Your task to perform on an android device: Open Youtube and go to "Your channel" Image 0: 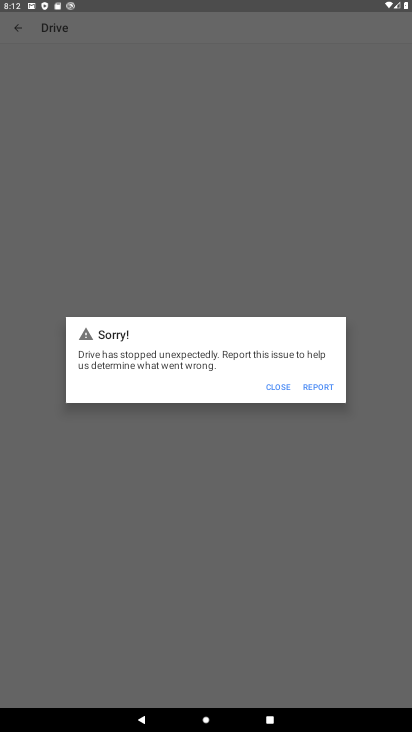
Step 0: press home button
Your task to perform on an android device: Open Youtube and go to "Your channel" Image 1: 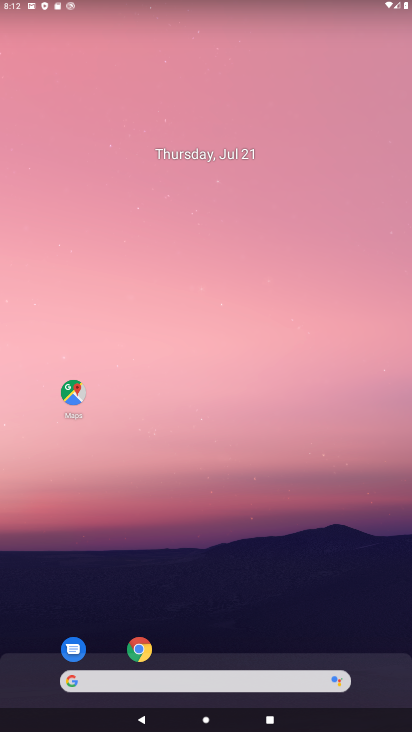
Step 1: drag from (176, 660) to (168, 59)
Your task to perform on an android device: Open Youtube and go to "Your channel" Image 2: 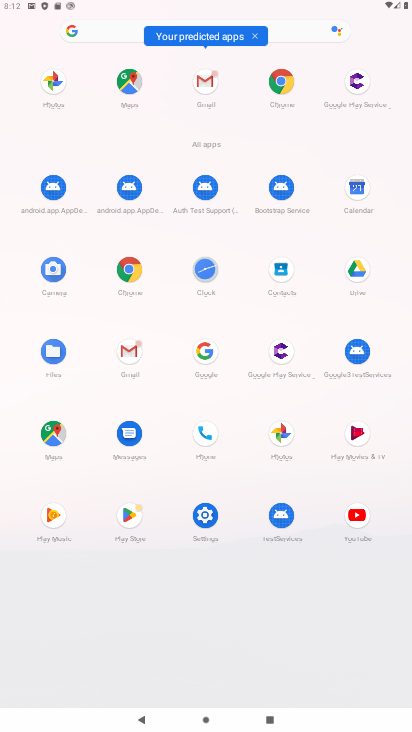
Step 2: click (353, 515)
Your task to perform on an android device: Open Youtube and go to "Your channel" Image 3: 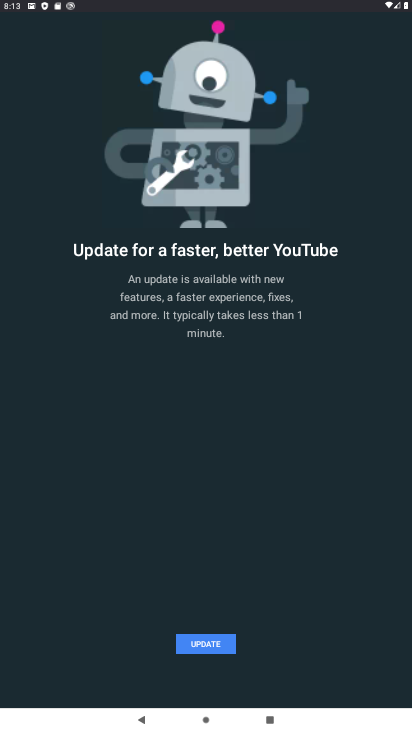
Step 3: click (201, 644)
Your task to perform on an android device: Open Youtube and go to "Your channel" Image 4: 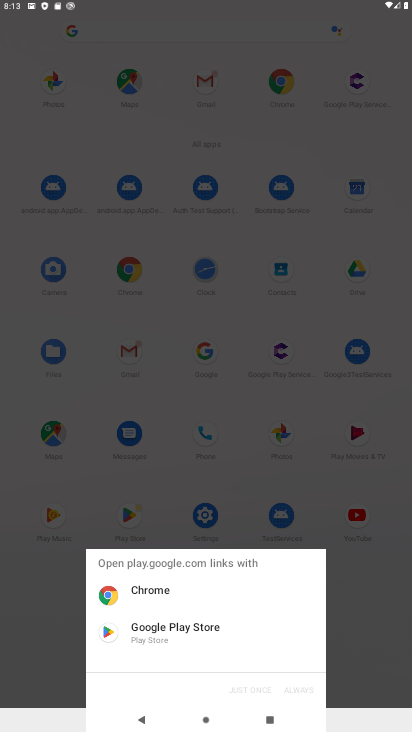
Step 4: click (201, 644)
Your task to perform on an android device: Open Youtube and go to "Your channel" Image 5: 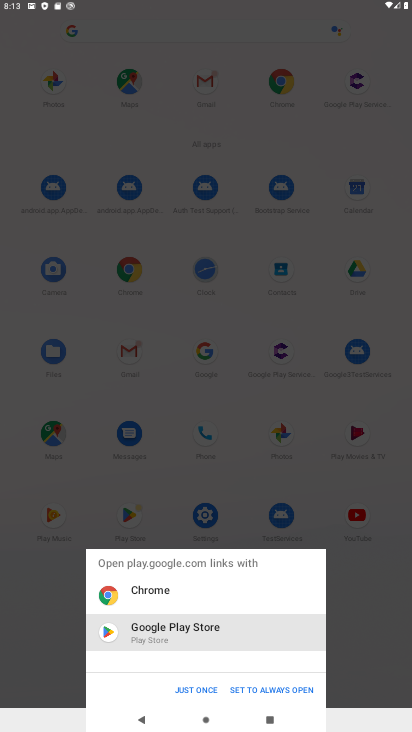
Step 5: click (184, 688)
Your task to perform on an android device: Open Youtube and go to "Your channel" Image 6: 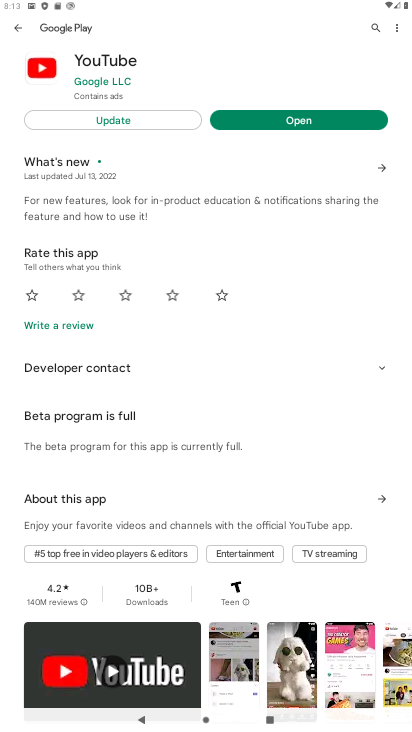
Step 6: click (323, 119)
Your task to perform on an android device: Open Youtube and go to "Your channel" Image 7: 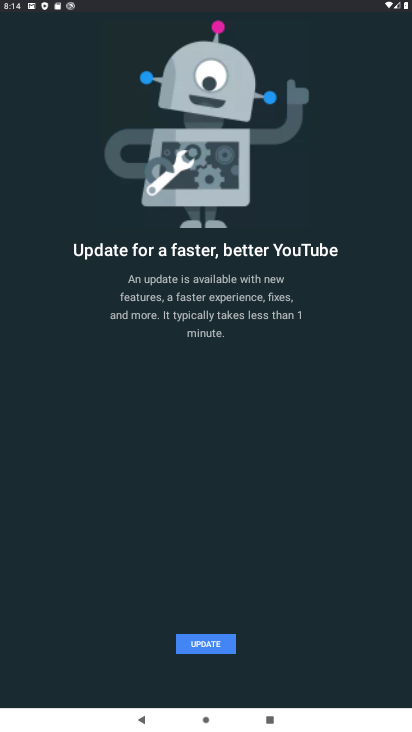
Step 7: click (200, 647)
Your task to perform on an android device: Open Youtube and go to "Your channel" Image 8: 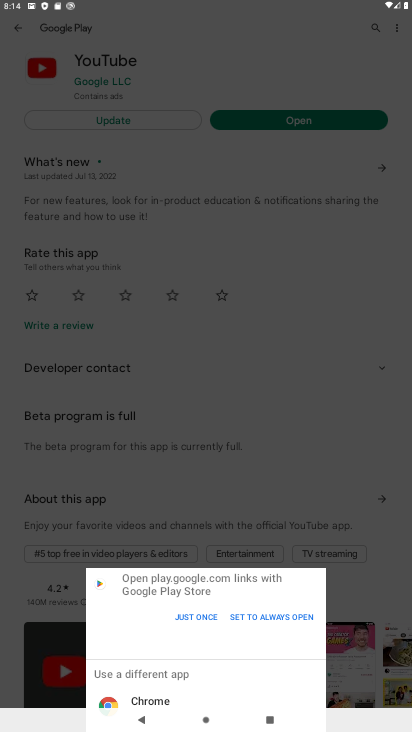
Step 8: click (197, 613)
Your task to perform on an android device: Open Youtube and go to "Your channel" Image 9: 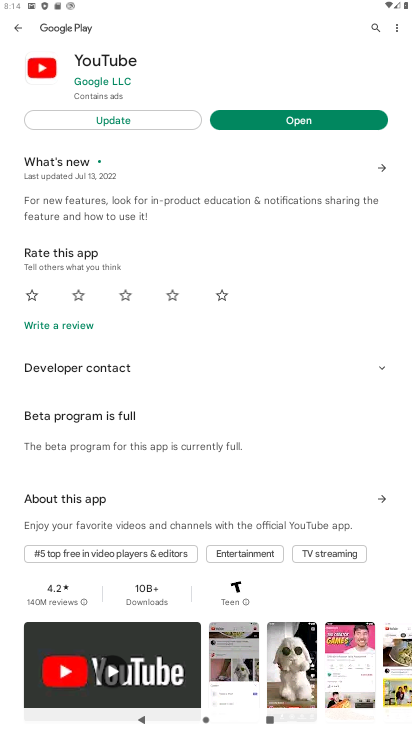
Step 9: click (100, 128)
Your task to perform on an android device: Open Youtube and go to "Your channel" Image 10: 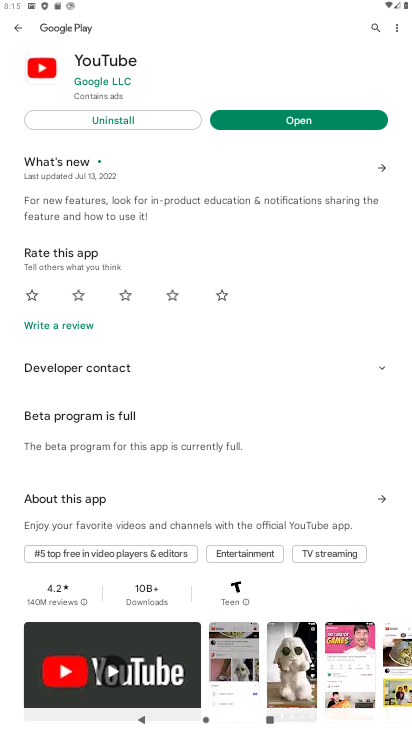
Step 10: click (233, 118)
Your task to perform on an android device: Open Youtube and go to "Your channel" Image 11: 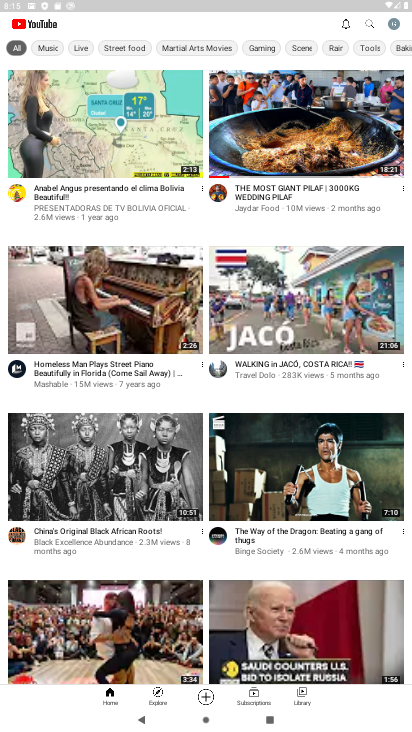
Step 11: click (369, 23)
Your task to perform on an android device: Open Youtube and go to "Your channel" Image 12: 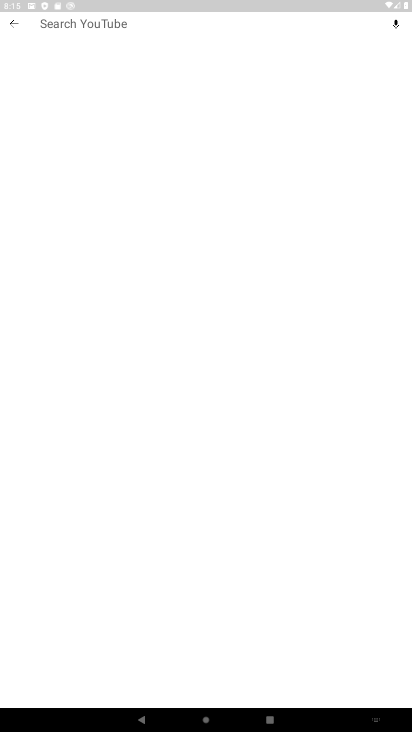
Step 12: type "your channel,"
Your task to perform on an android device: Open Youtube and go to "Your channel" Image 13: 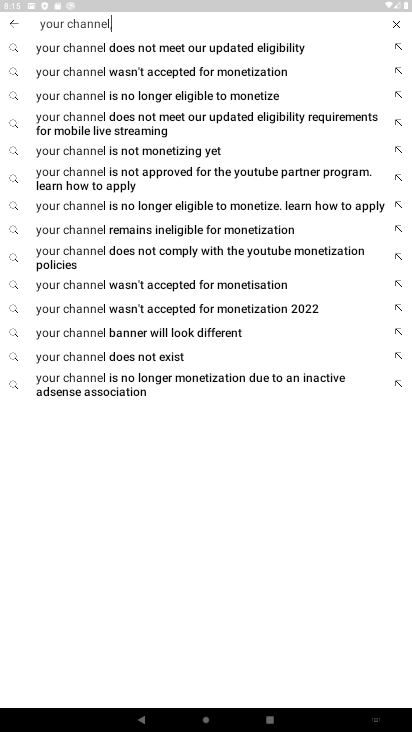
Step 13: click (395, 22)
Your task to perform on an android device: Open Youtube and go to "Your channel" Image 14: 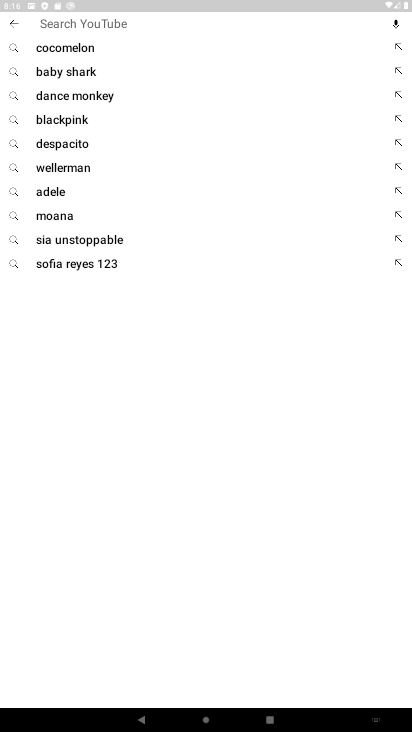
Step 14: type "your channel"
Your task to perform on an android device: Open Youtube and go to "Your channel" Image 15: 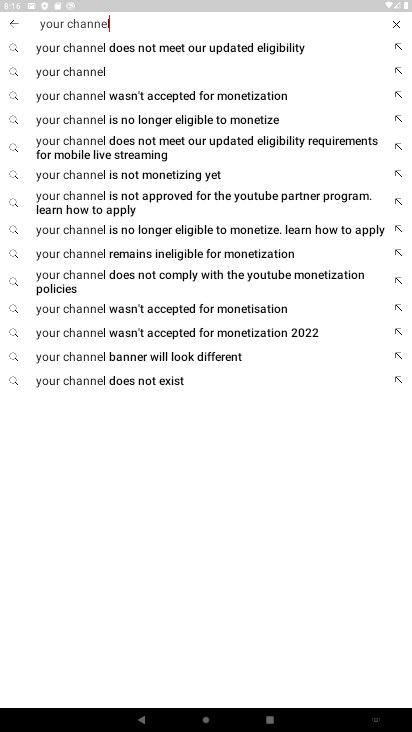
Step 15: click (120, 81)
Your task to perform on an android device: Open Youtube and go to "Your channel" Image 16: 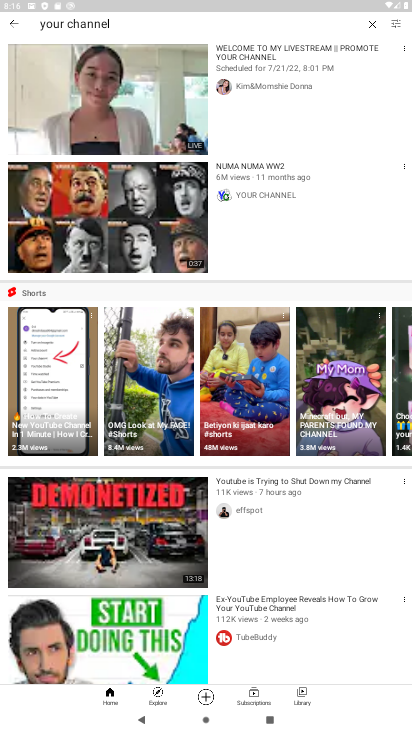
Step 16: task complete